Your task to perform on an android device: Search for "logitech g502" on walmart.com, select the first entry, add it to the cart, then select checkout. Image 0: 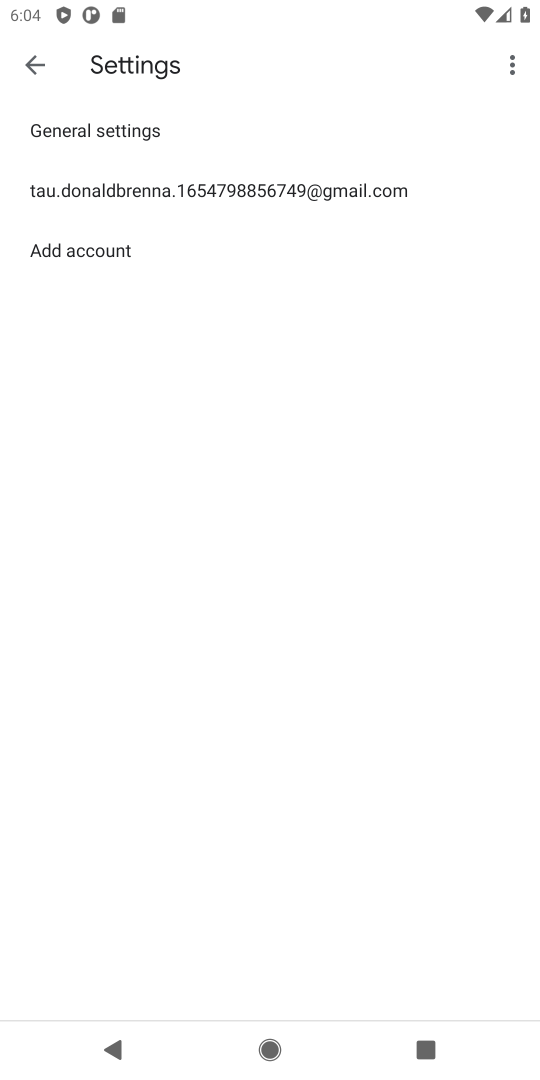
Step 0: press home button
Your task to perform on an android device: Search for "logitech g502" on walmart.com, select the first entry, add it to the cart, then select checkout. Image 1: 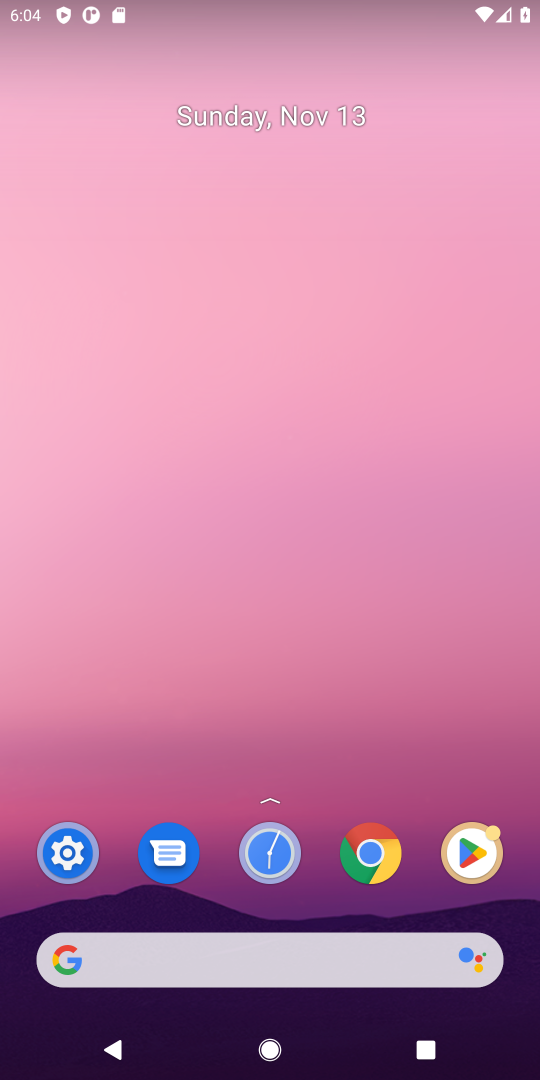
Step 1: click (105, 956)
Your task to perform on an android device: Search for "logitech g502" on walmart.com, select the first entry, add it to the cart, then select checkout. Image 2: 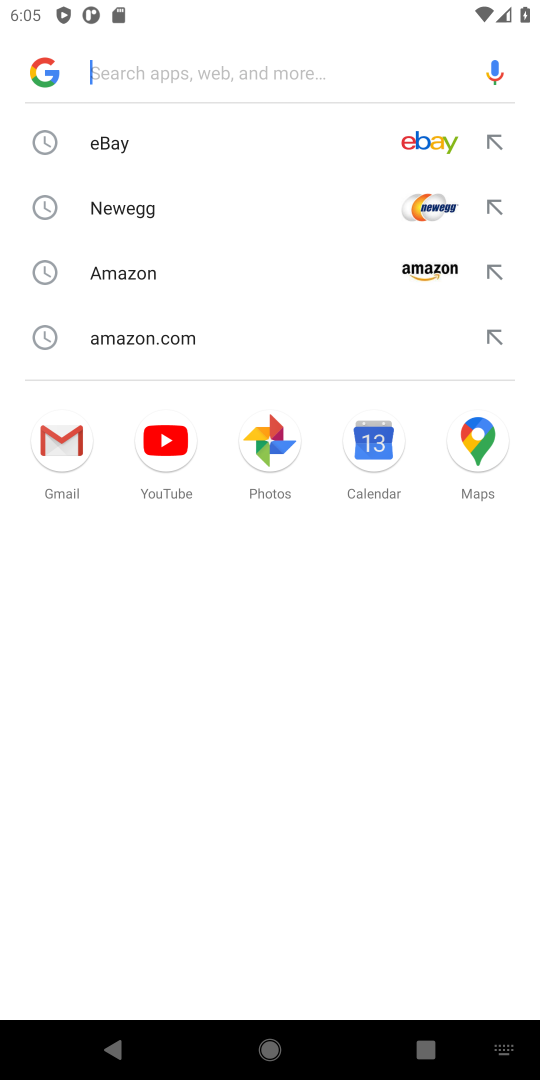
Step 2: type "walmart.com"
Your task to perform on an android device: Search for "logitech g502" on walmart.com, select the first entry, add it to the cart, then select checkout. Image 3: 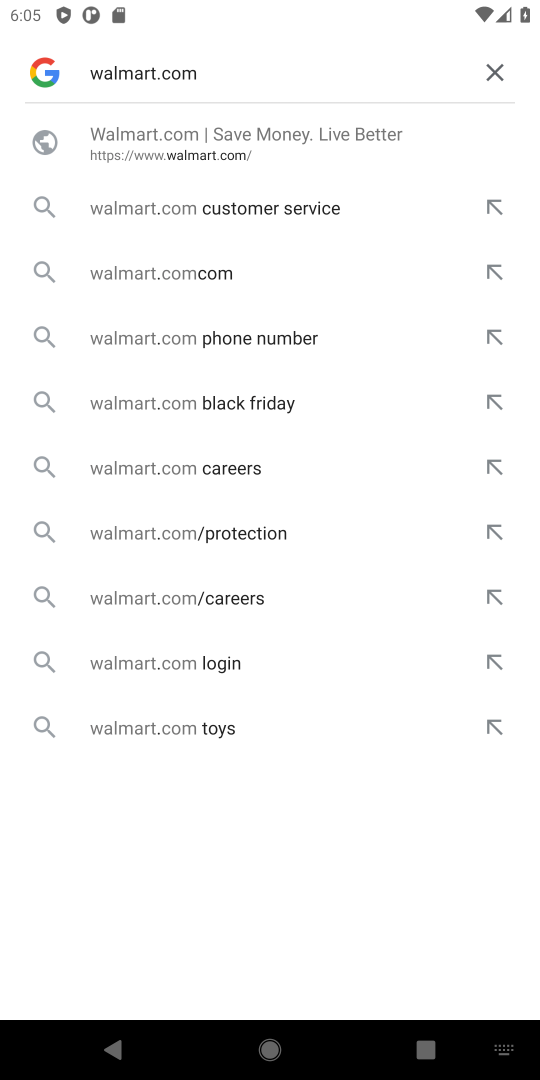
Step 3: press enter
Your task to perform on an android device: Search for "logitech g502" on walmart.com, select the first entry, add it to the cart, then select checkout. Image 4: 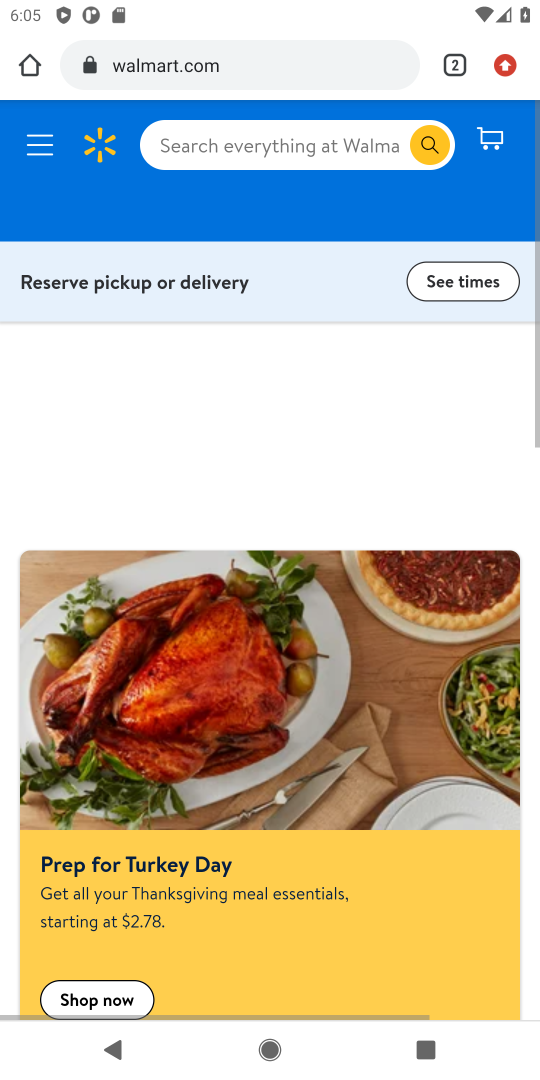
Step 4: click (175, 146)
Your task to perform on an android device: Search for "logitech g502" on walmart.com, select the first entry, add it to the cart, then select checkout. Image 5: 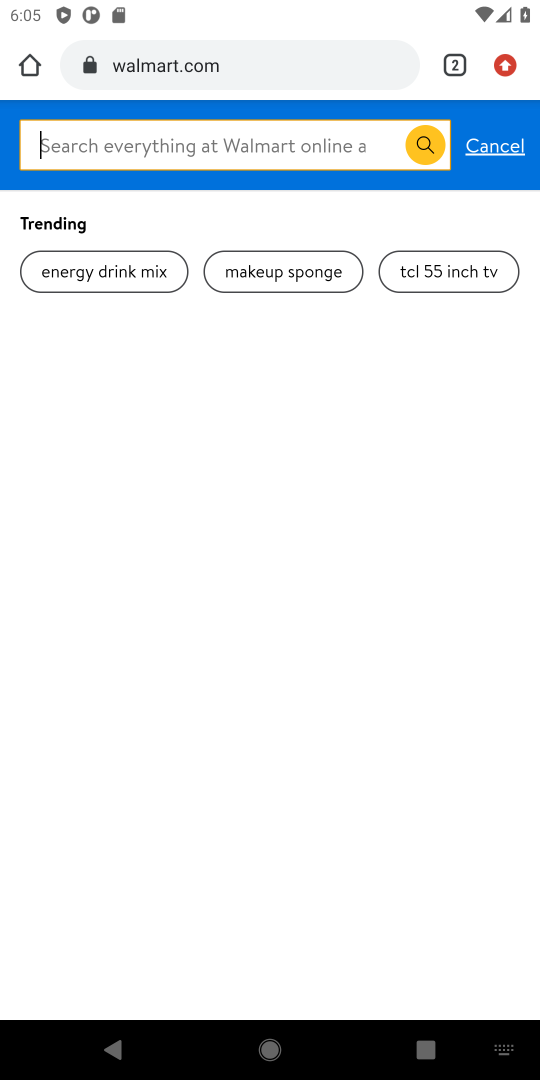
Step 5: type "logitech g502"
Your task to perform on an android device: Search for "logitech g502" on walmart.com, select the first entry, add it to the cart, then select checkout. Image 6: 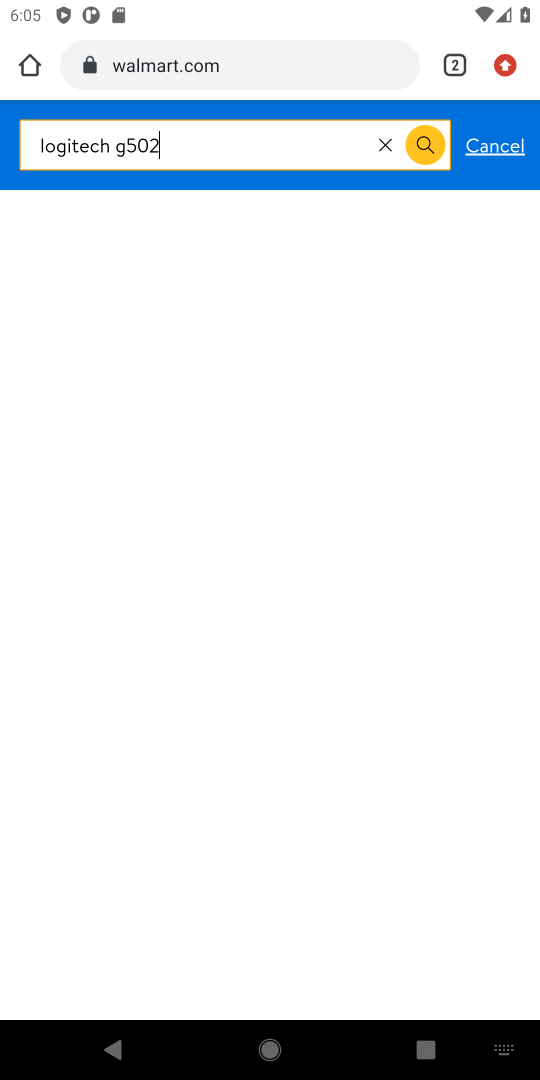
Step 6: press enter
Your task to perform on an android device: Search for "logitech g502" on walmart.com, select the first entry, add it to the cart, then select checkout. Image 7: 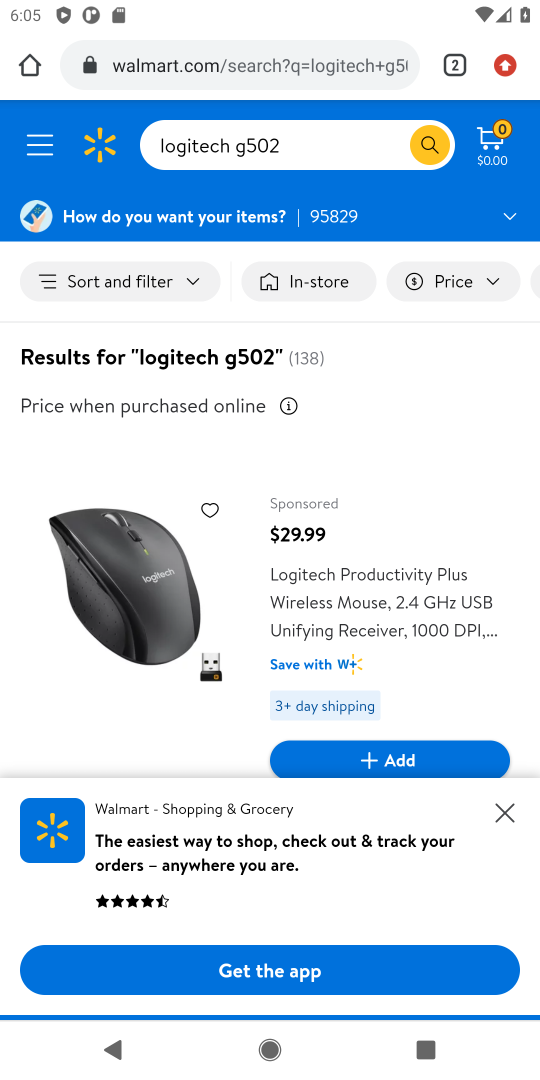
Step 7: click (513, 812)
Your task to perform on an android device: Search for "logitech g502" on walmart.com, select the first entry, add it to the cart, then select checkout. Image 8: 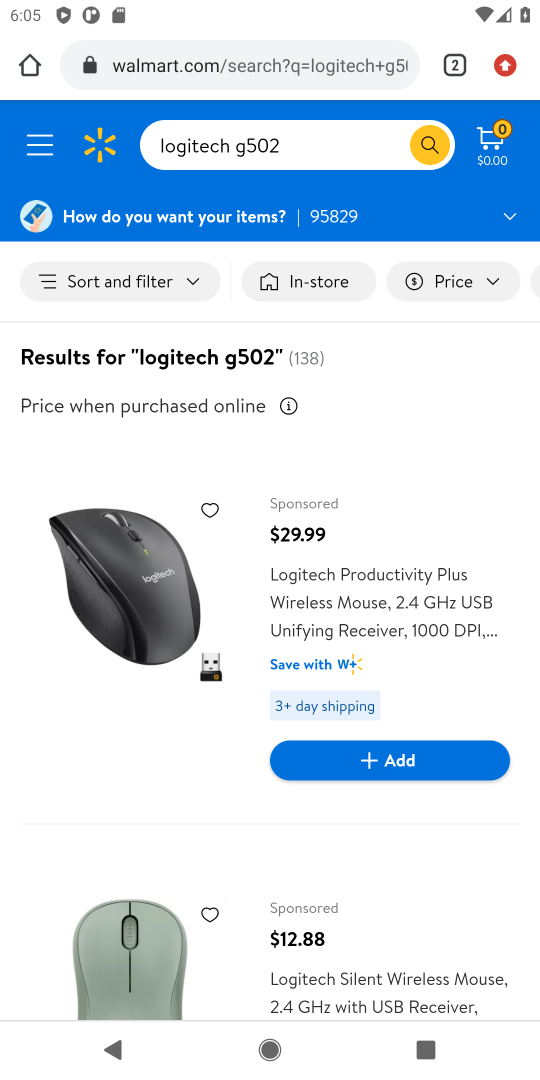
Step 8: drag from (377, 867) to (374, 592)
Your task to perform on an android device: Search for "logitech g502" on walmart.com, select the first entry, add it to the cart, then select checkout. Image 9: 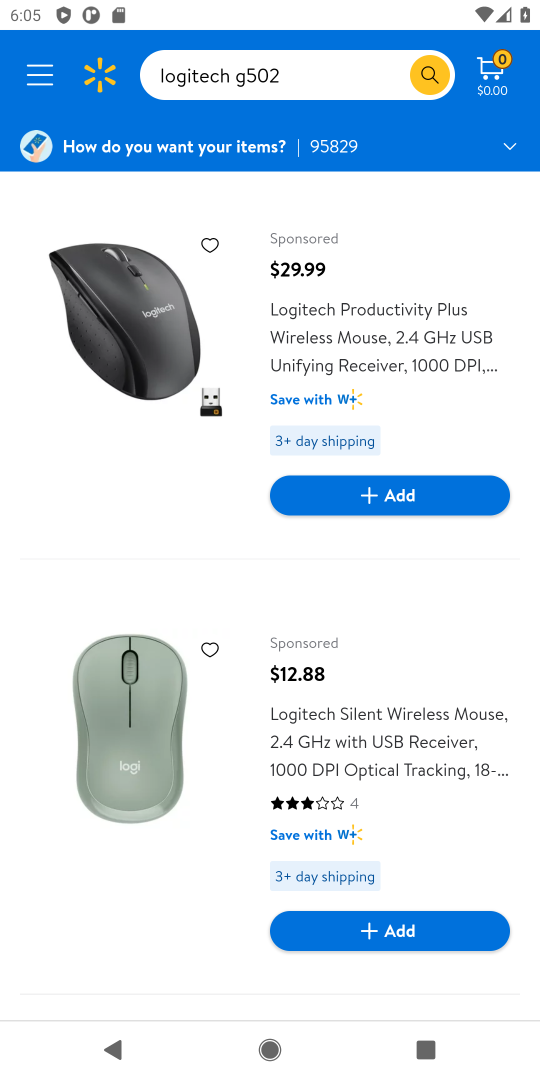
Step 9: drag from (212, 855) to (239, 560)
Your task to perform on an android device: Search for "logitech g502" on walmart.com, select the first entry, add it to the cart, then select checkout. Image 10: 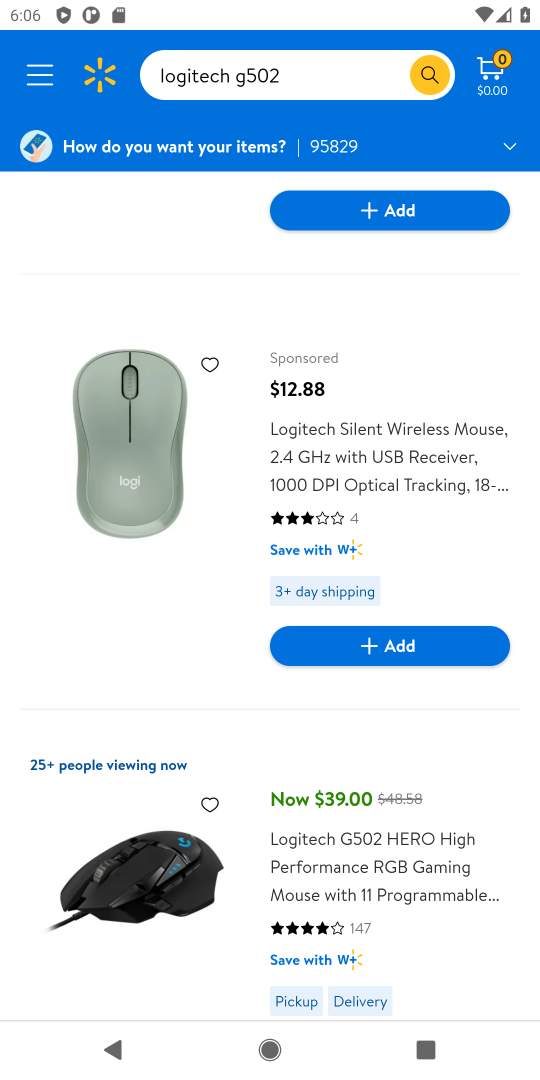
Step 10: drag from (322, 890) to (323, 601)
Your task to perform on an android device: Search for "logitech g502" on walmart.com, select the first entry, add it to the cart, then select checkout. Image 11: 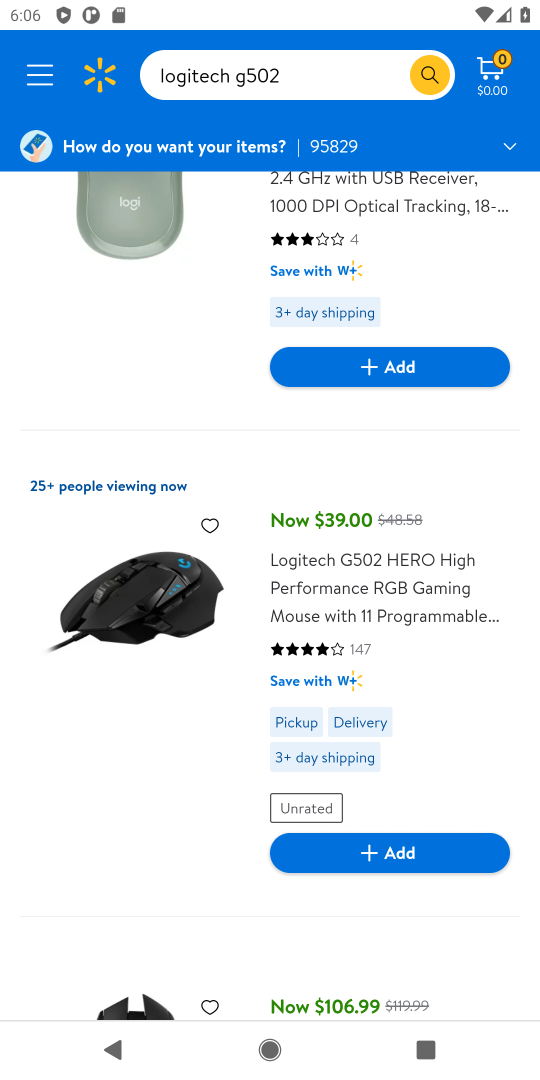
Step 11: click (420, 864)
Your task to perform on an android device: Search for "logitech g502" on walmart.com, select the first entry, add it to the cart, then select checkout. Image 12: 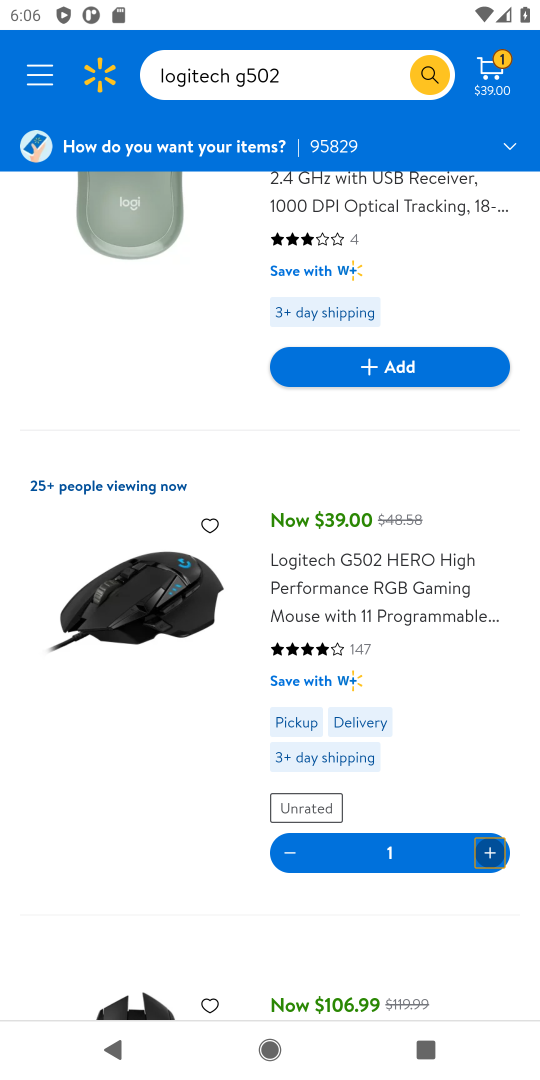
Step 12: click (365, 577)
Your task to perform on an android device: Search for "logitech g502" on walmart.com, select the first entry, add it to the cart, then select checkout. Image 13: 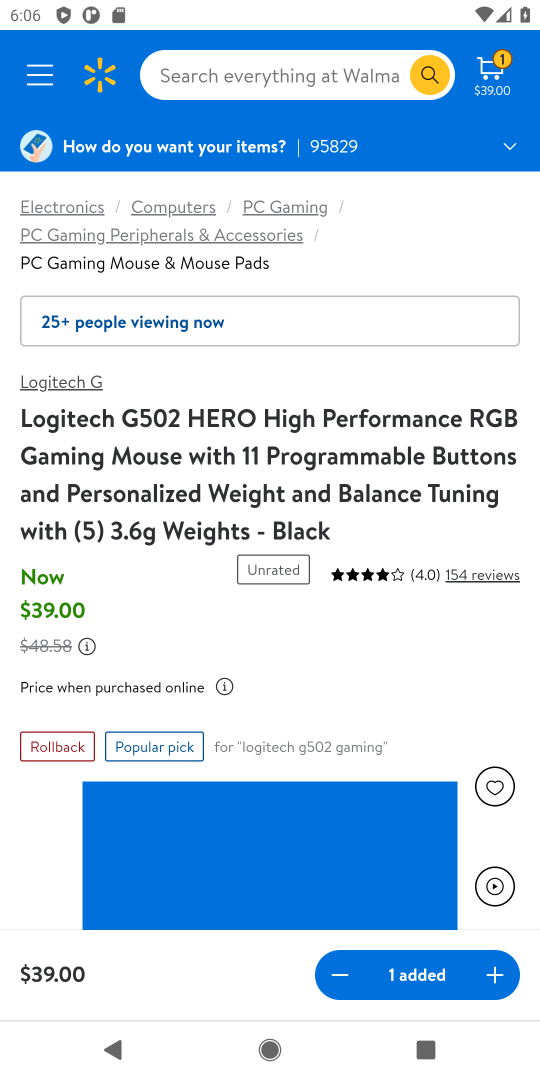
Step 13: click (493, 78)
Your task to perform on an android device: Search for "logitech g502" on walmart.com, select the first entry, add it to the cart, then select checkout. Image 14: 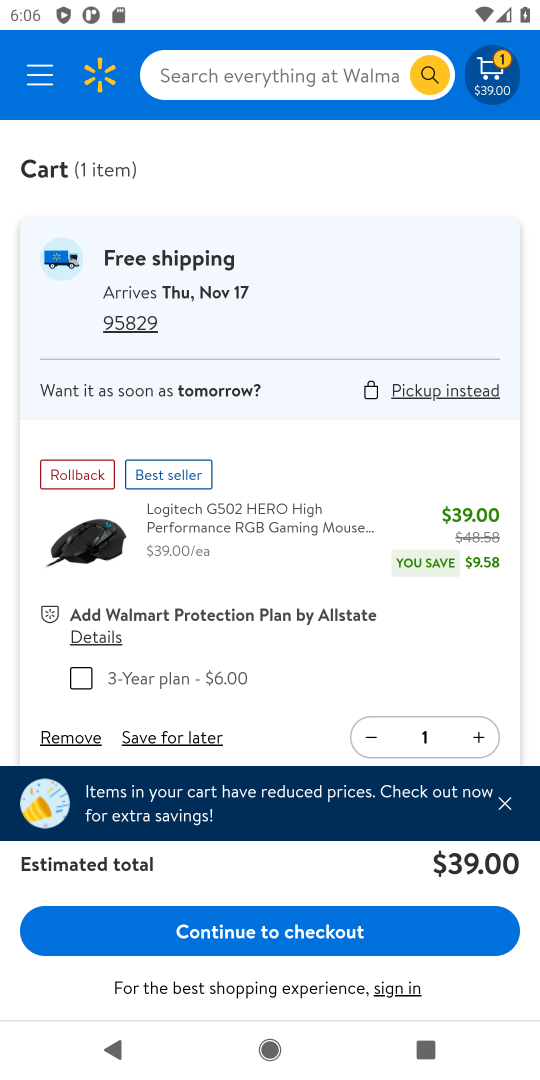
Step 14: click (318, 938)
Your task to perform on an android device: Search for "logitech g502" on walmart.com, select the first entry, add it to the cart, then select checkout. Image 15: 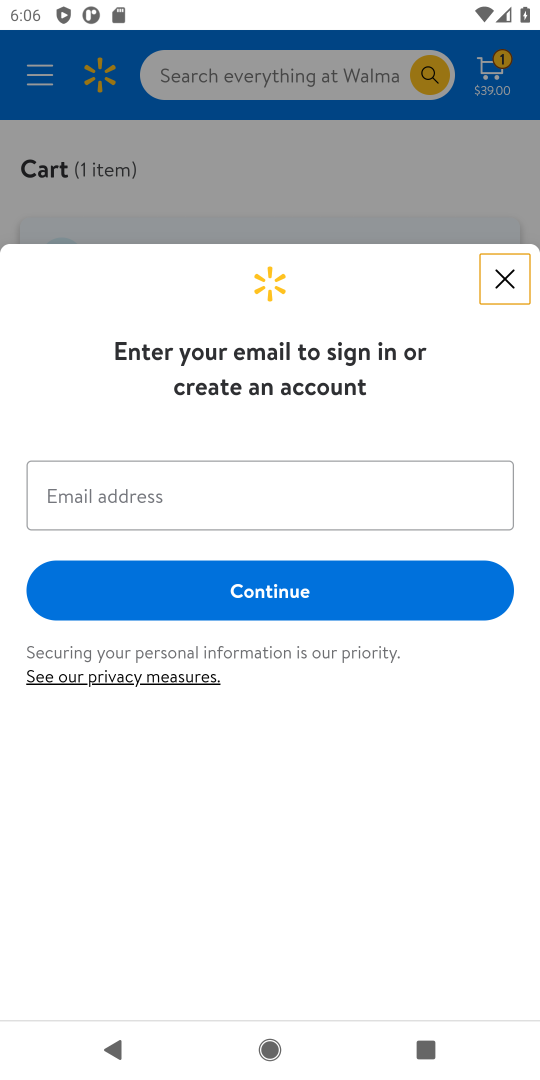
Step 15: task complete